Your task to perform on an android device: turn off sleep mode Image 0: 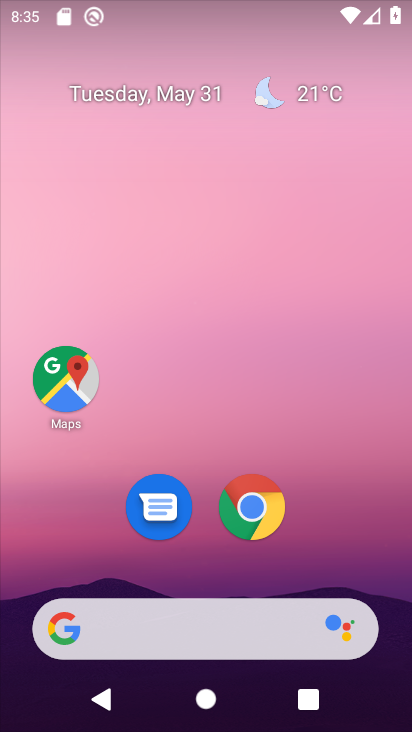
Step 0: drag from (288, 714) to (136, 213)
Your task to perform on an android device: turn off sleep mode Image 1: 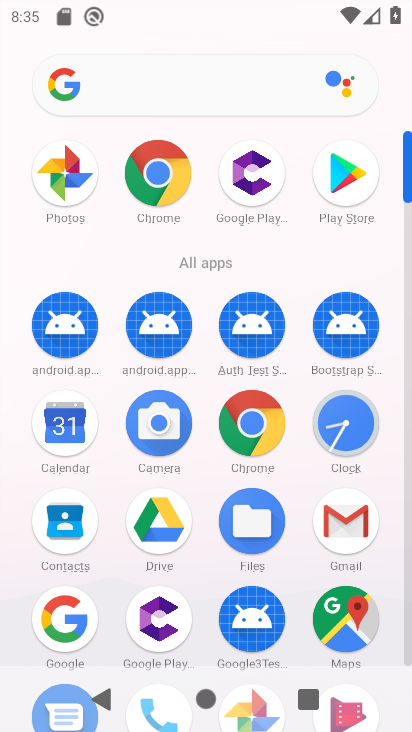
Step 1: task complete